Your task to perform on an android device: turn off sleep mode Image 0: 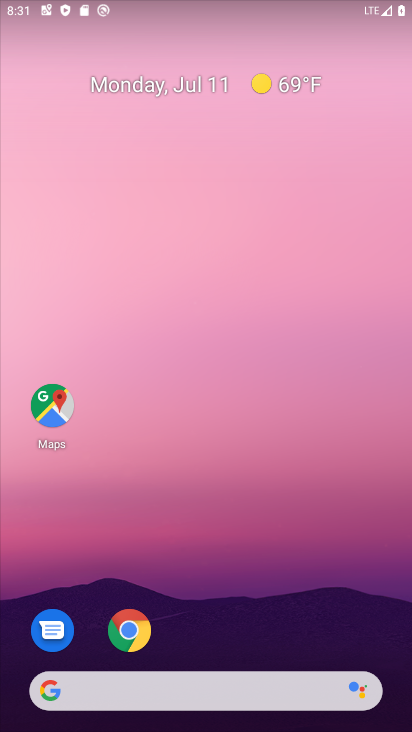
Step 0: drag from (170, 683) to (187, 0)
Your task to perform on an android device: turn off sleep mode Image 1: 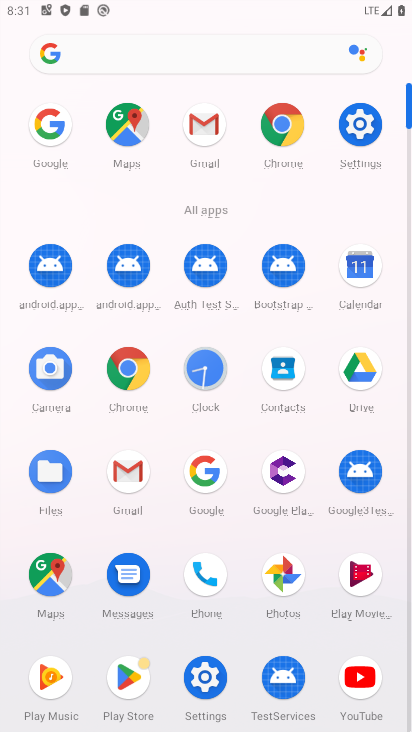
Step 1: click (374, 120)
Your task to perform on an android device: turn off sleep mode Image 2: 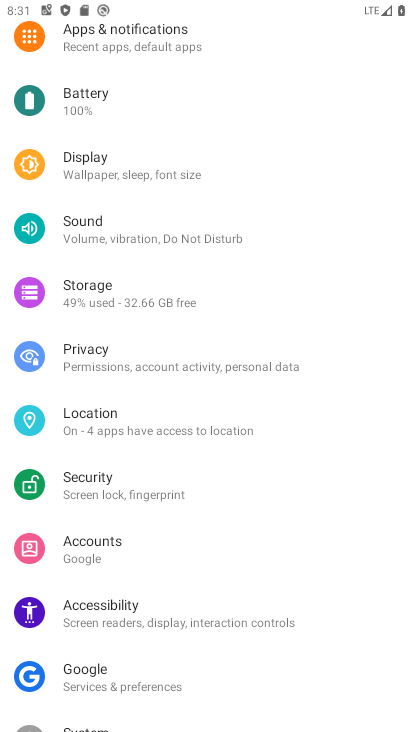
Step 2: click (116, 175)
Your task to perform on an android device: turn off sleep mode Image 3: 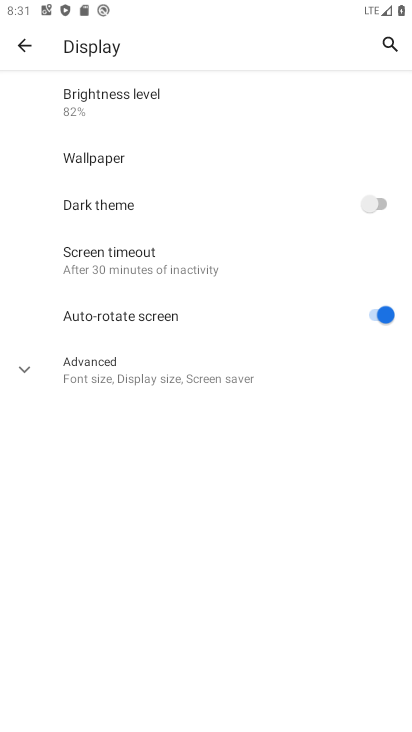
Step 3: click (100, 369)
Your task to perform on an android device: turn off sleep mode Image 4: 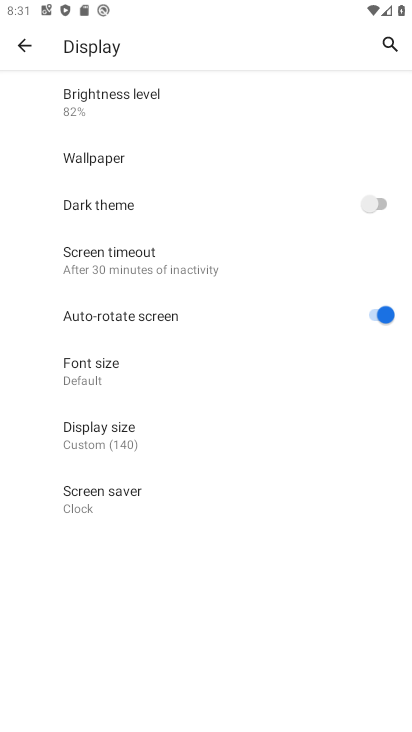
Step 4: task complete